Your task to perform on an android device: Show me recent news Image 0: 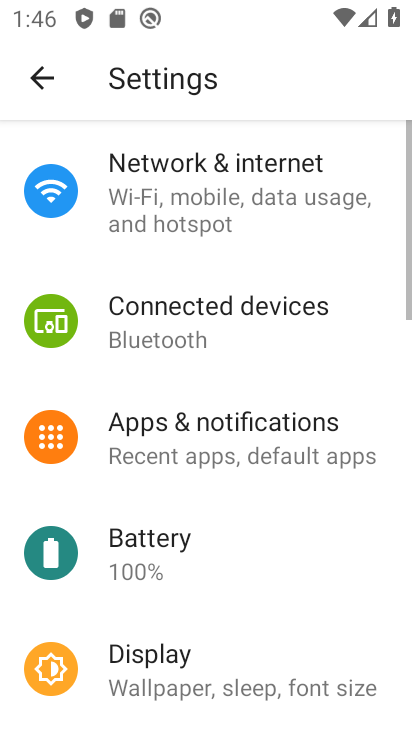
Step 0: press home button
Your task to perform on an android device: Show me recent news Image 1: 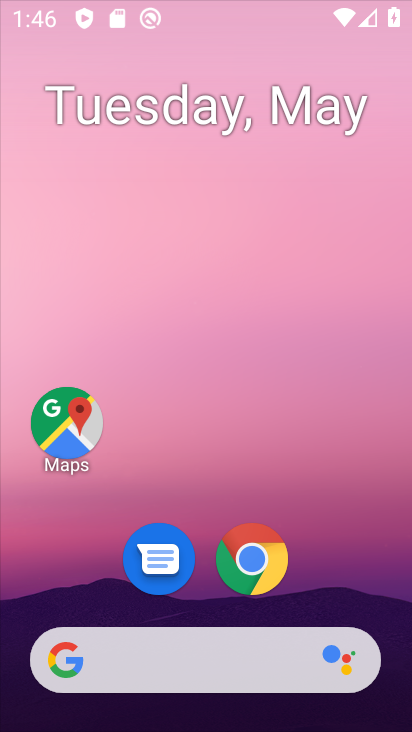
Step 1: drag from (375, 482) to (293, 60)
Your task to perform on an android device: Show me recent news Image 2: 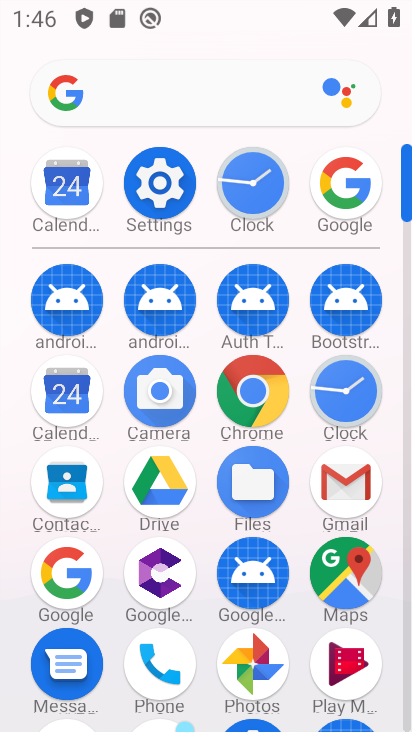
Step 2: click (49, 597)
Your task to perform on an android device: Show me recent news Image 3: 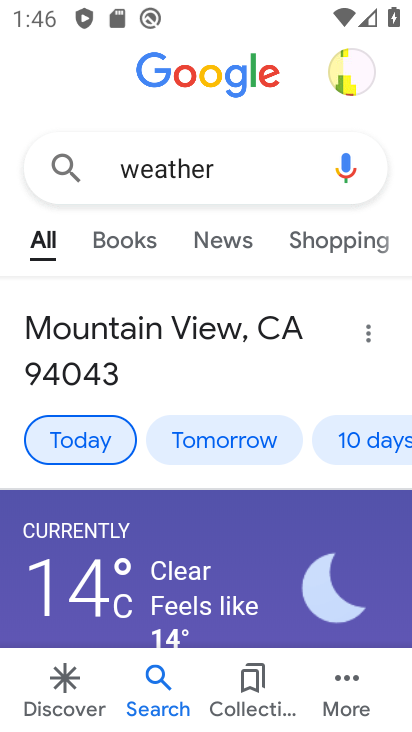
Step 3: press back button
Your task to perform on an android device: Show me recent news Image 4: 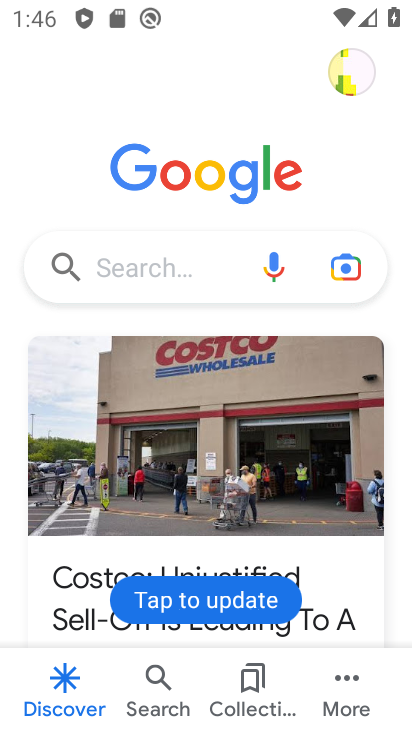
Step 4: click (107, 267)
Your task to perform on an android device: Show me recent news Image 5: 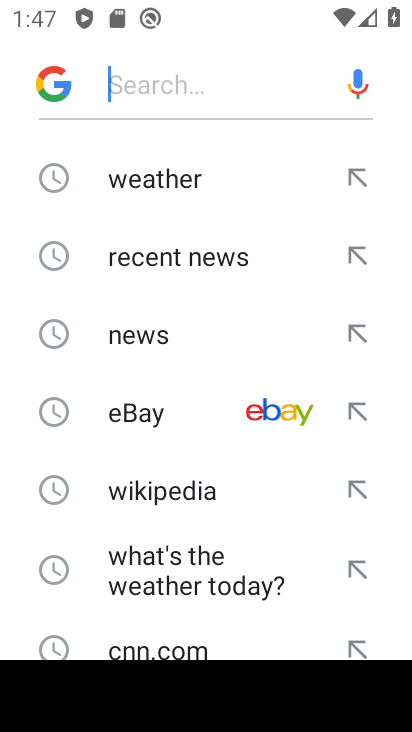
Step 5: click (132, 253)
Your task to perform on an android device: Show me recent news Image 6: 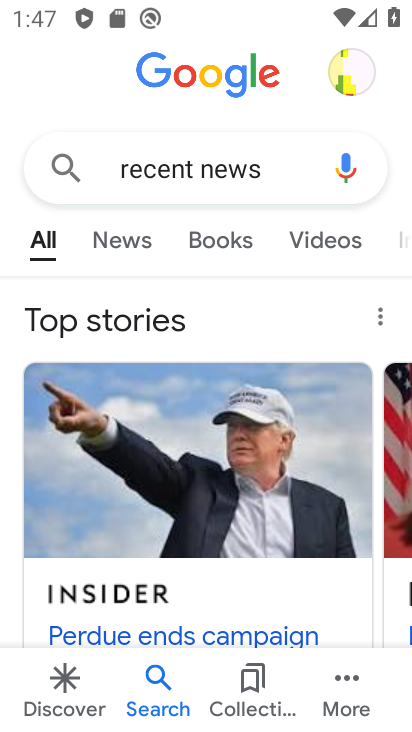
Step 6: task complete